Your task to perform on an android device: Open settings on Google Maps Image 0: 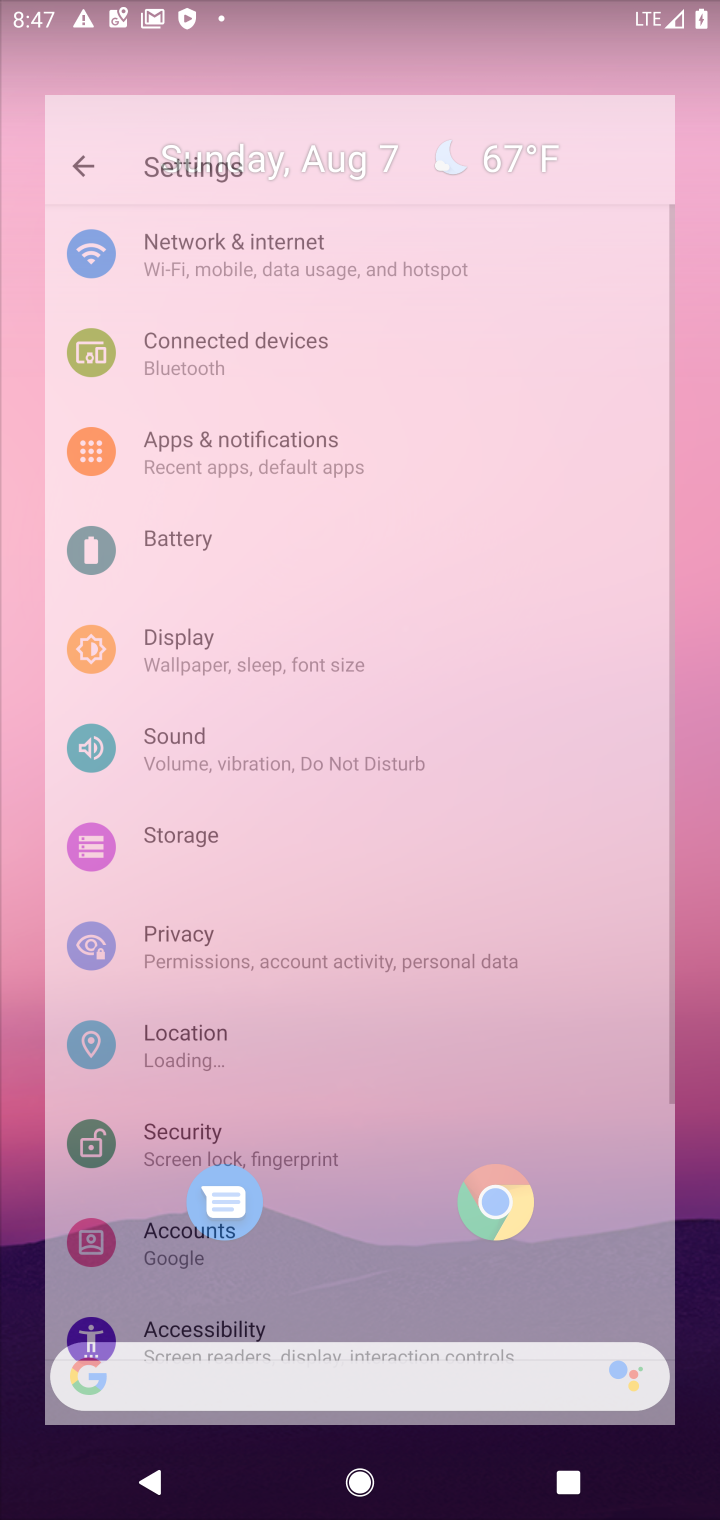
Step 0: press home button
Your task to perform on an android device: Open settings on Google Maps Image 1: 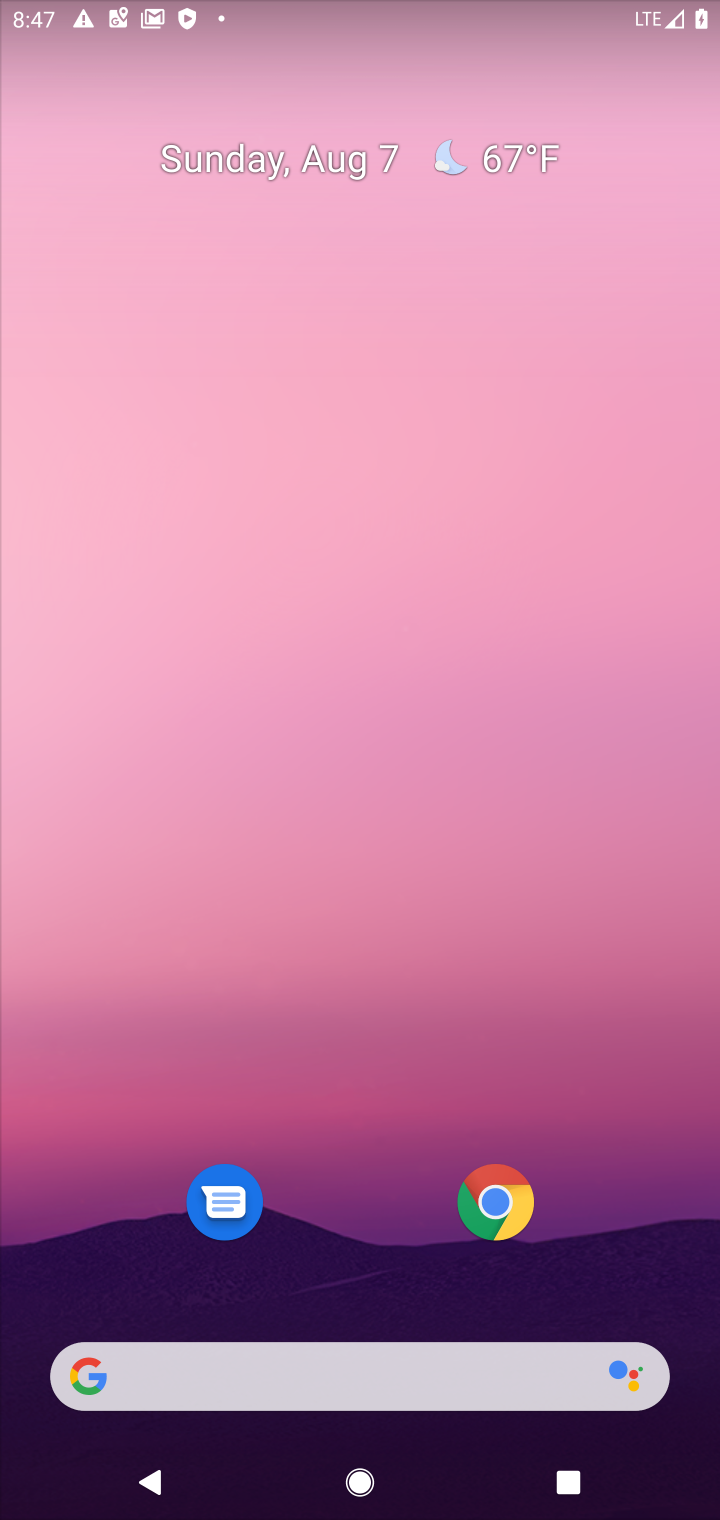
Step 1: drag from (222, 580) to (215, 249)
Your task to perform on an android device: Open settings on Google Maps Image 2: 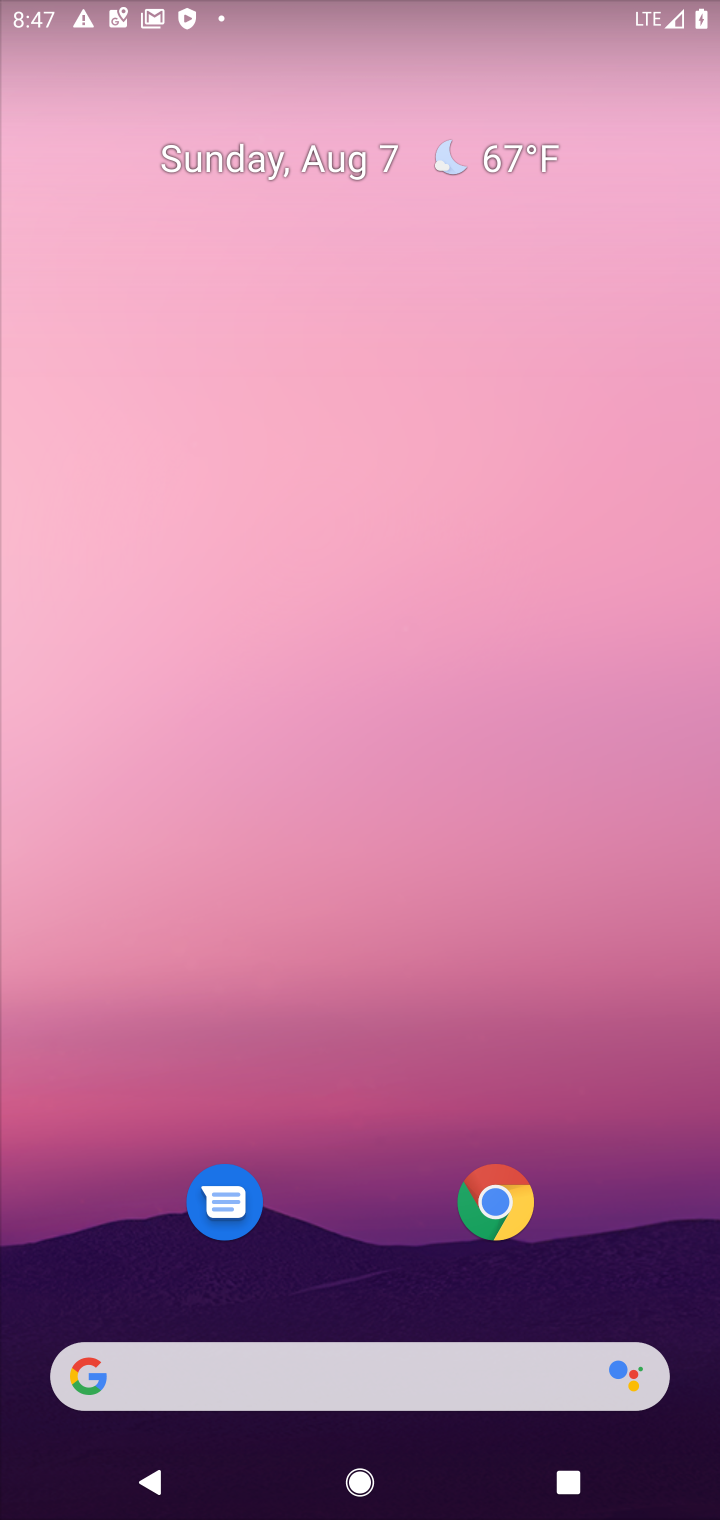
Step 2: drag from (354, 1138) to (351, 7)
Your task to perform on an android device: Open settings on Google Maps Image 3: 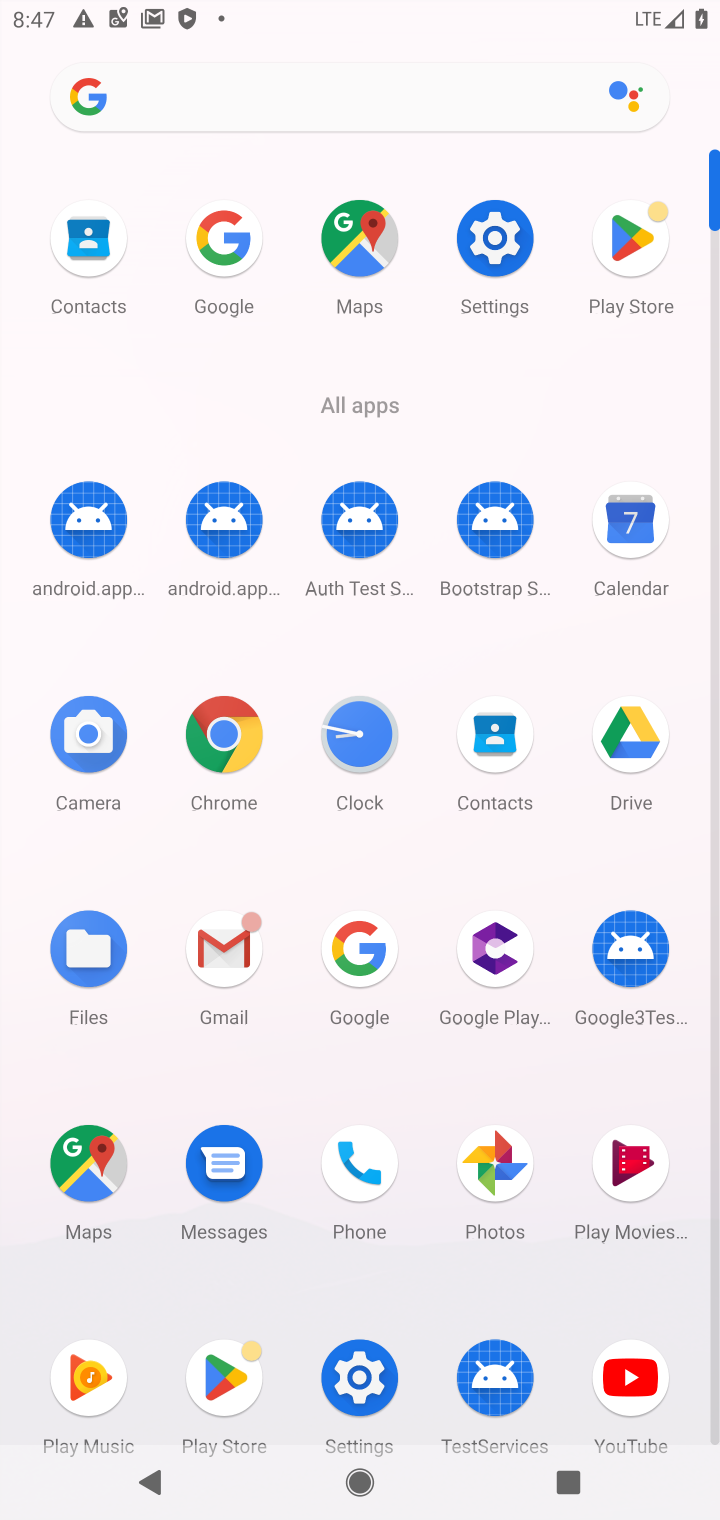
Step 3: click (85, 1179)
Your task to perform on an android device: Open settings on Google Maps Image 4: 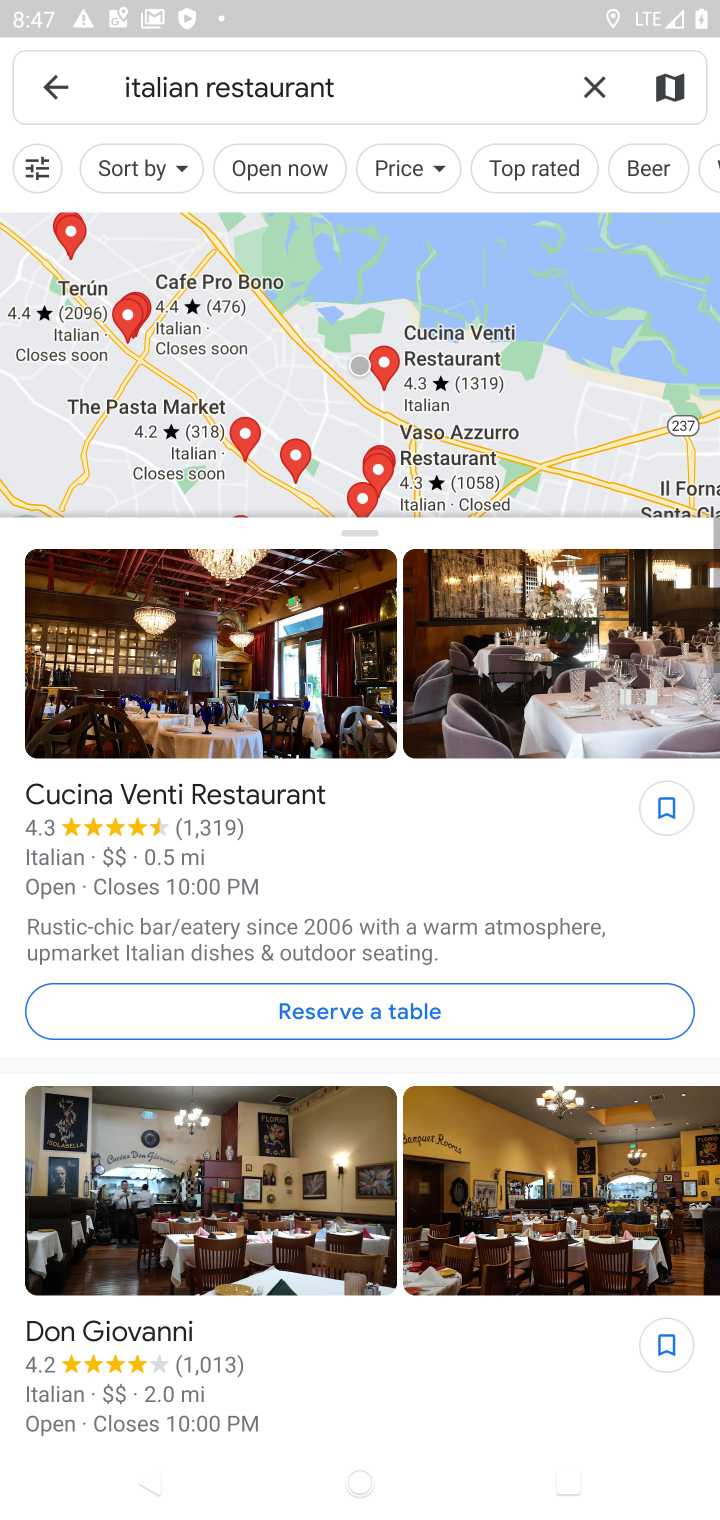
Step 4: click (45, 73)
Your task to perform on an android device: Open settings on Google Maps Image 5: 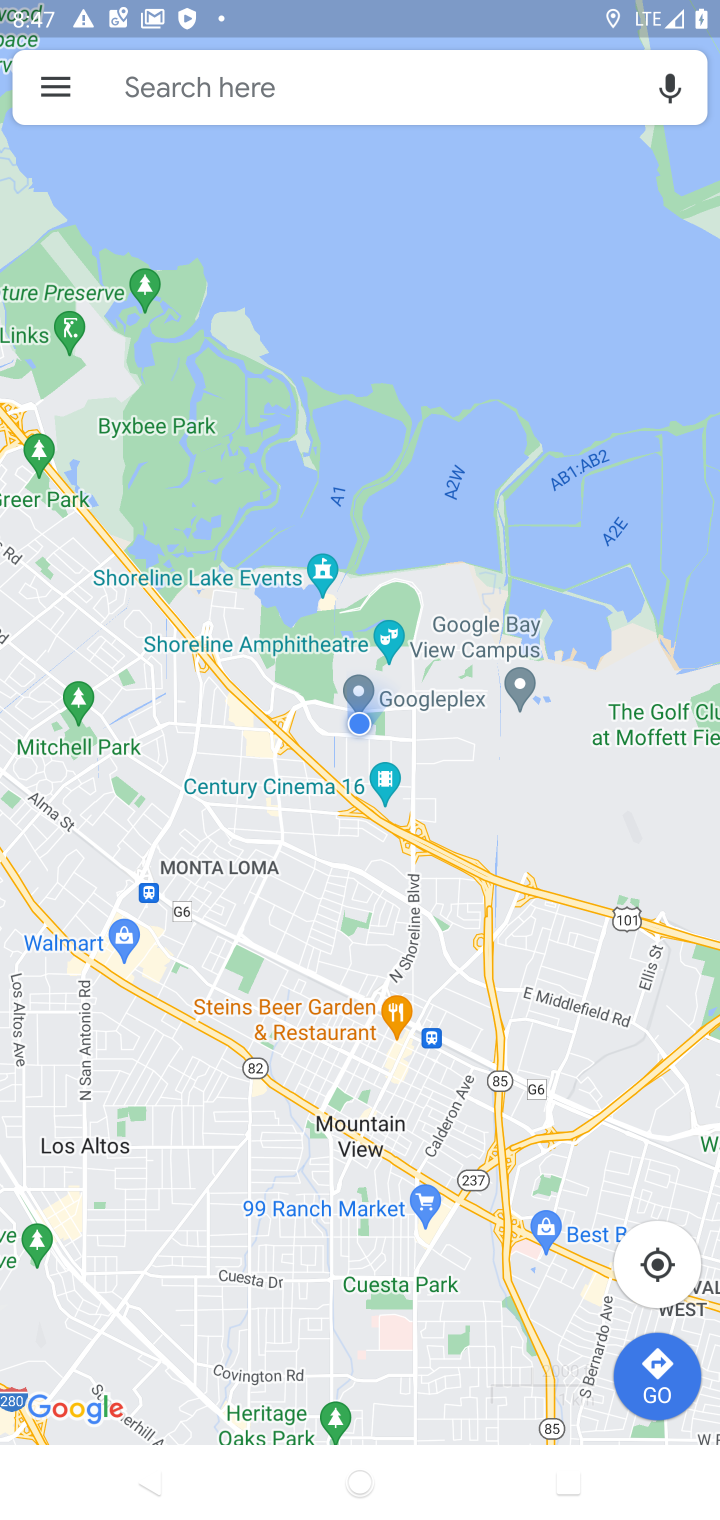
Step 5: click (80, 91)
Your task to perform on an android device: Open settings on Google Maps Image 6: 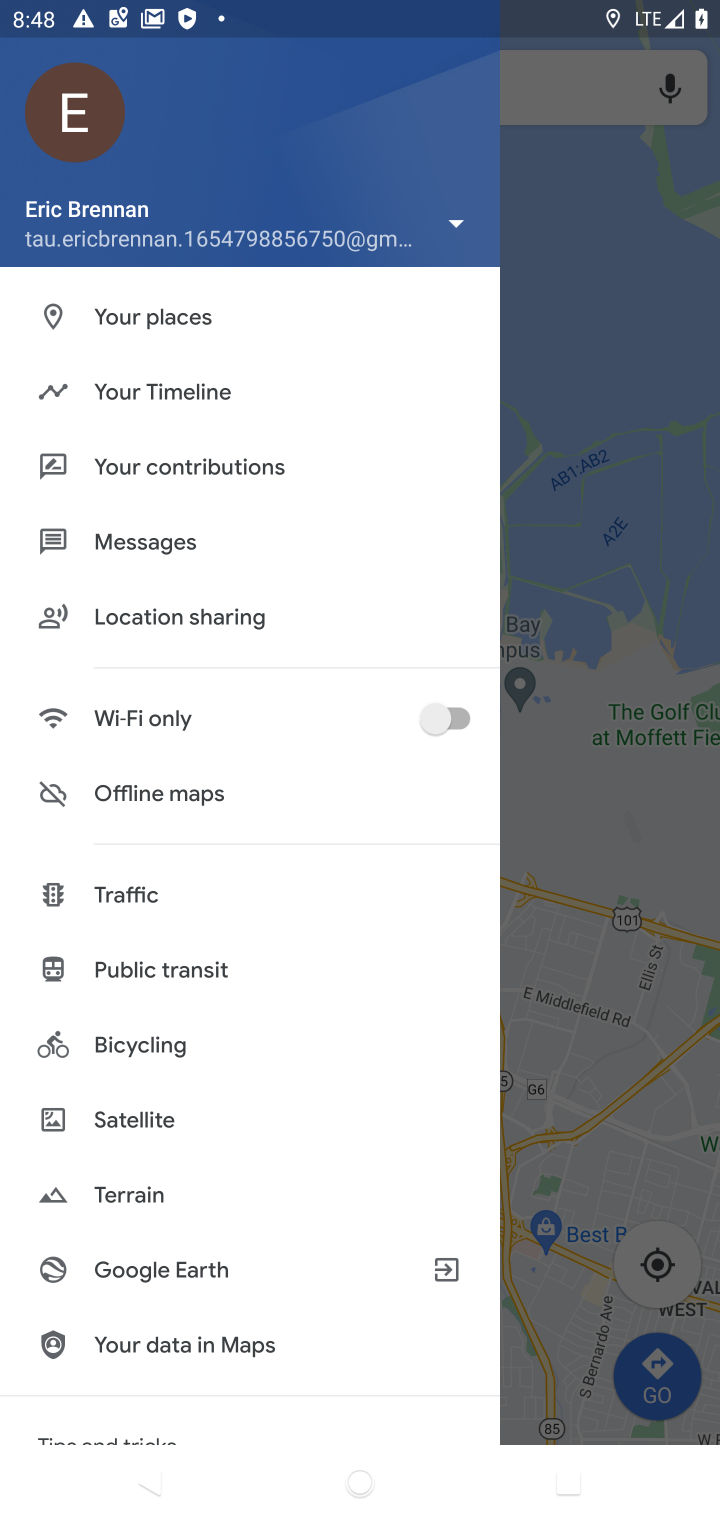
Step 6: drag from (158, 1324) to (202, 206)
Your task to perform on an android device: Open settings on Google Maps Image 7: 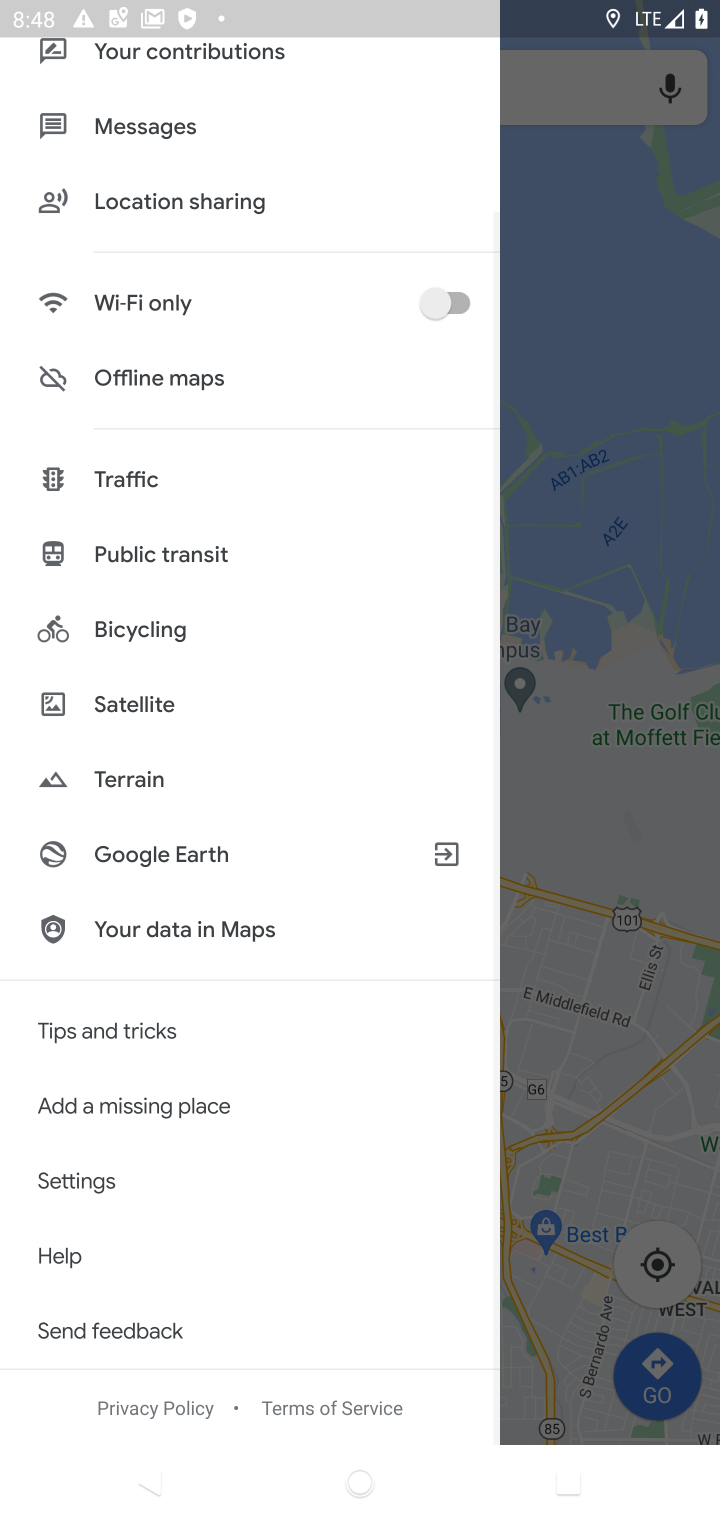
Step 7: drag from (274, 1233) to (272, 661)
Your task to perform on an android device: Open settings on Google Maps Image 8: 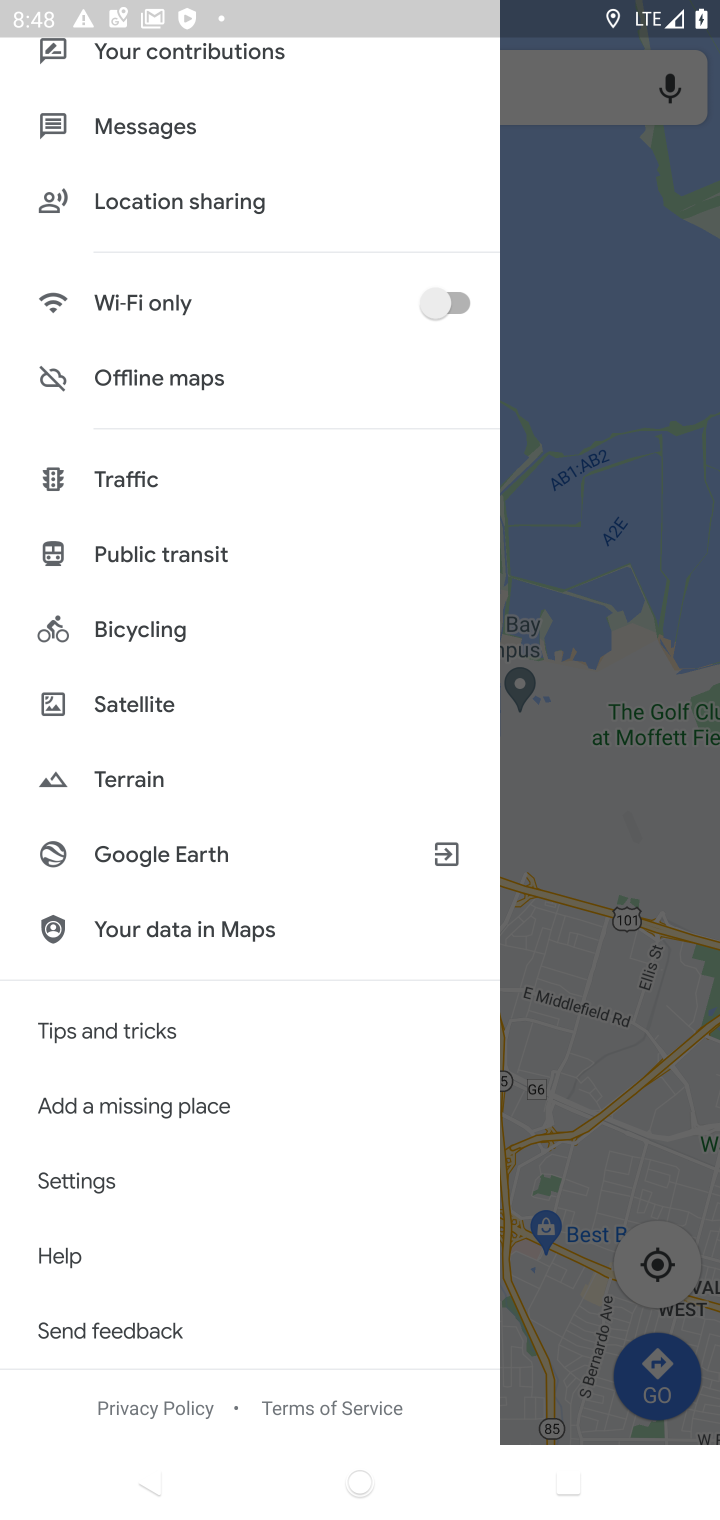
Step 8: click (142, 1170)
Your task to perform on an android device: Open settings on Google Maps Image 9: 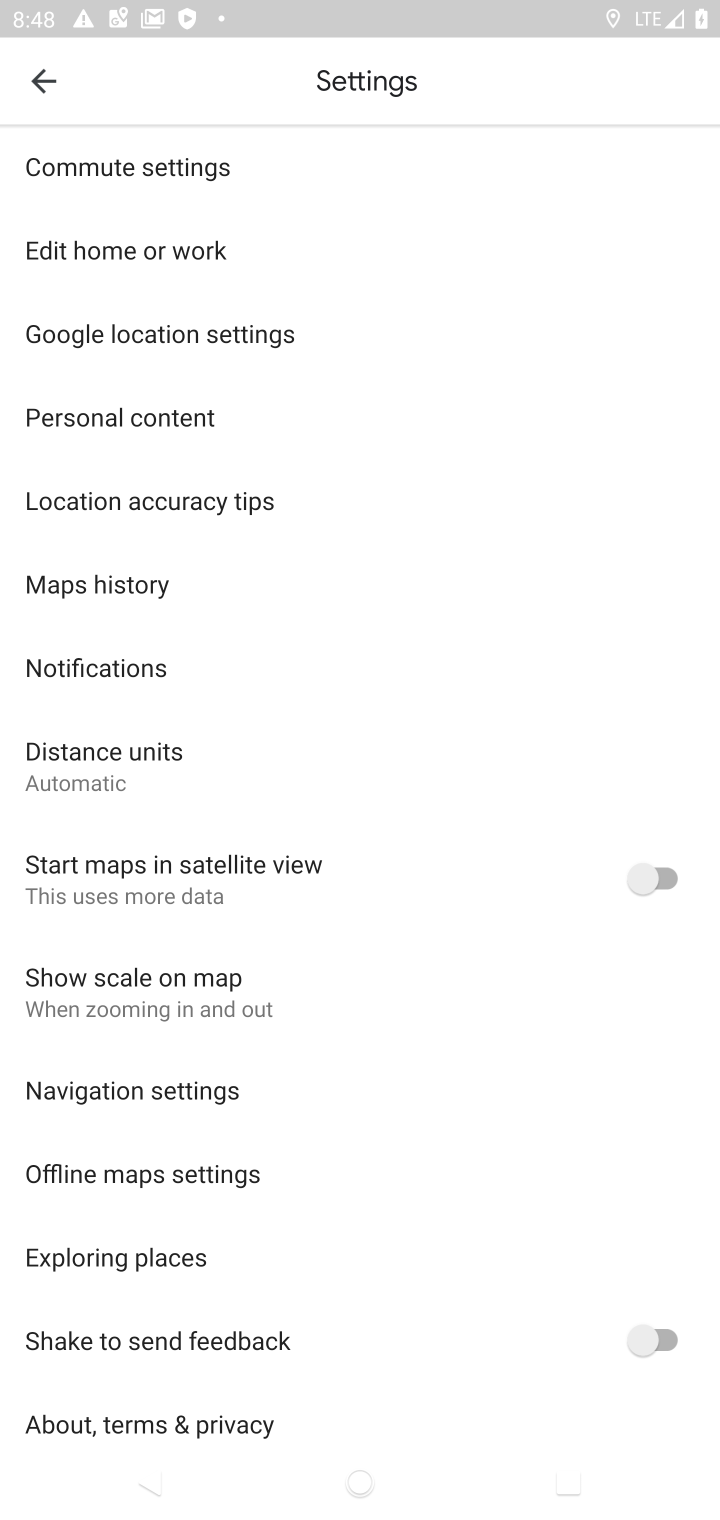
Step 9: task complete